Your task to perform on an android device: Open Youtube and go to "Your channel" Image 0: 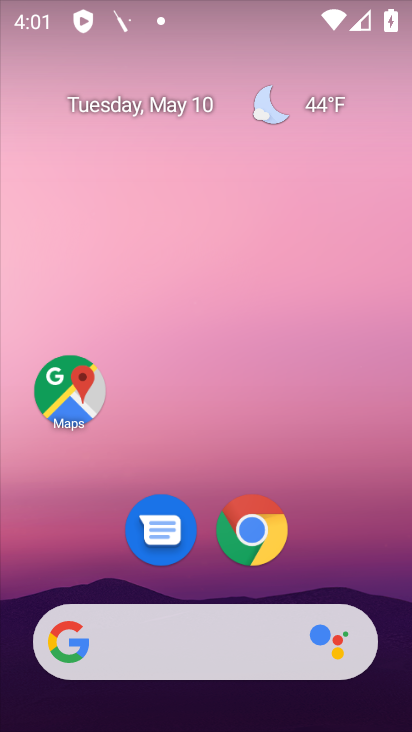
Step 0: drag from (177, 573) to (316, 2)
Your task to perform on an android device: Open Youtube and go to "Your channel" Image 1: 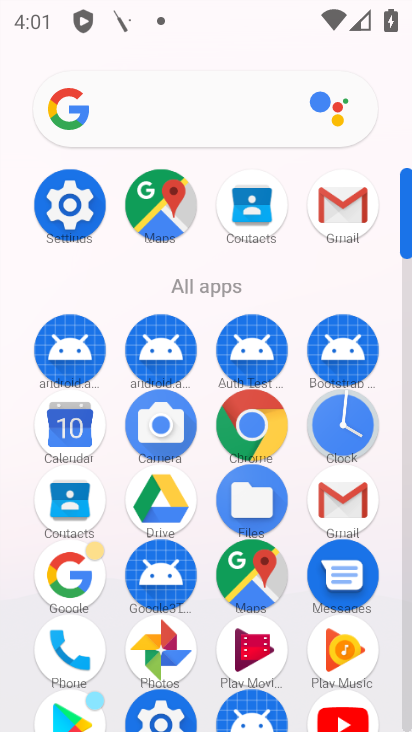
Step 1: click (328, 720)
Your task to perform on an android device: Open Youtube and go to "Your channel" Image 2: 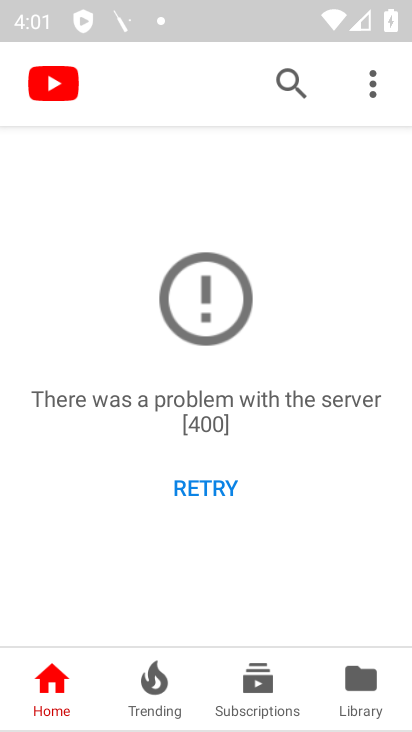
Step 2: click (323, 706)
Your task to perform on an android device: Open Youtube and go to "Your channel" Image 3: 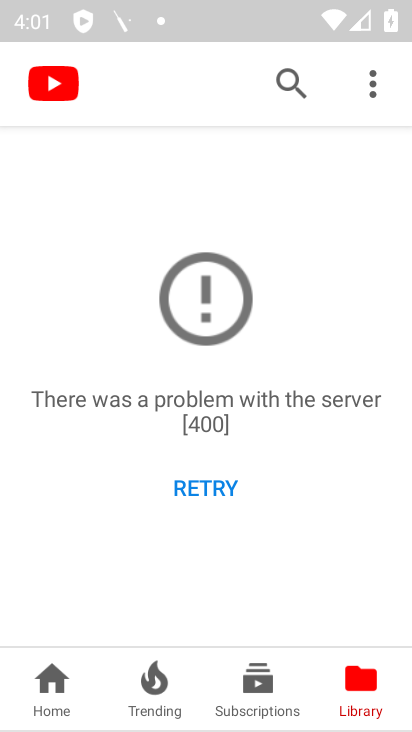
Step 3: click (373, 101)
Your task to perform on an android device: Open Youtube and go to "Your channel" Image 4: 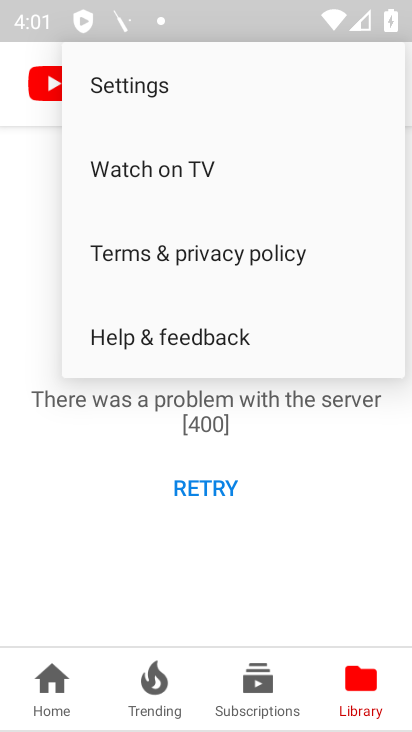
Step 4: click (13, 151)
Your task to perform on an android device: Open Youtube and go to "Your channel" Image 5: 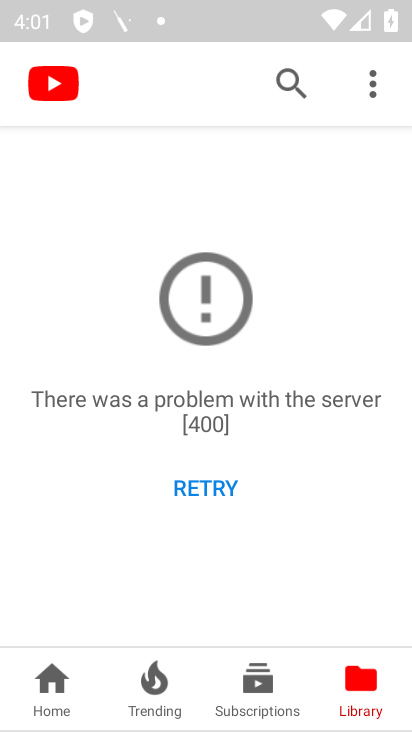
Step 5: click (46, 83)
Your task to perform on an android device: Open Youtube and go to "Your channel" Image 6: 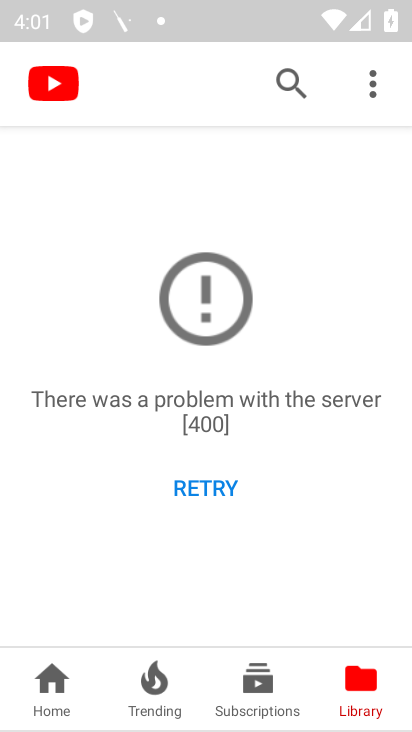
Step 6: task complete